Your task to perform on an android device: show emergency info Image 0: 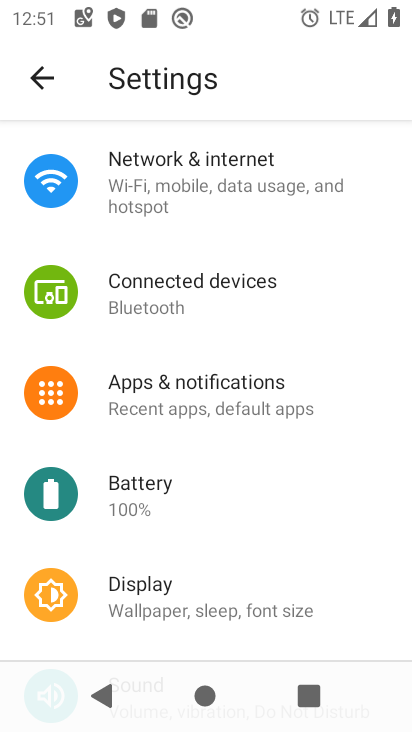
Step 0: drag from (243, 602) to (321, 0)
Your task to perform on an android device: show emergency info Image 1: 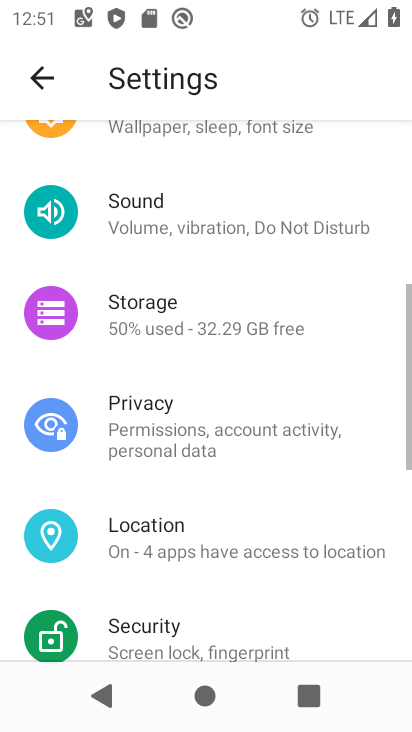
Step 1: drag from (218, 508) to (337, 18)
Your task to perform on an android device: show emergency info Image 2: 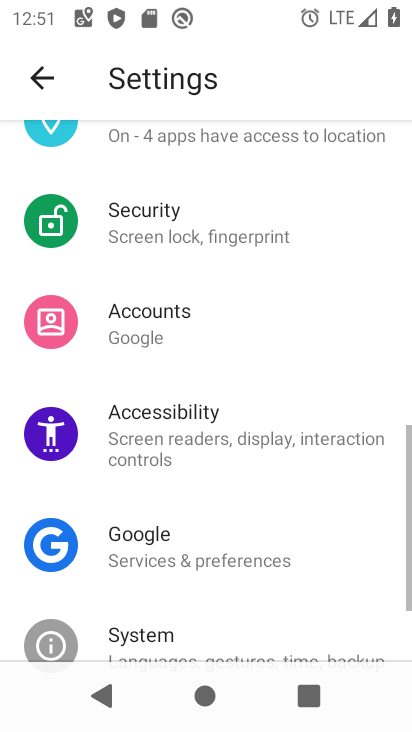
Step 2: drag from (182, 598) to (385, 437)
Your task to perform on an android device: show emergency info Image 3: 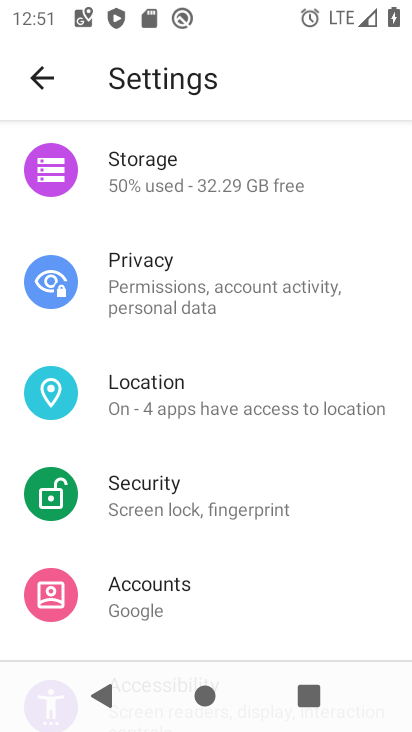
Step 3: drag from (158, 446) to (276, 55)
Your task to perform on an android device: show emergency info Image 4: 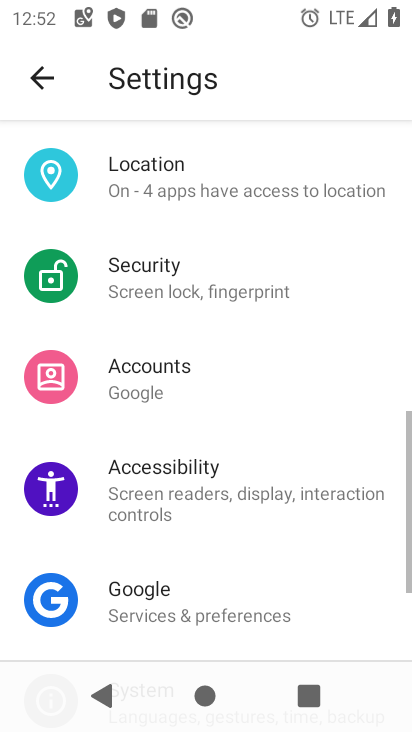
Step 4: drag from (196, 530) to (31, 309)
Your task to perform on an android device: show emergency info Image 5: 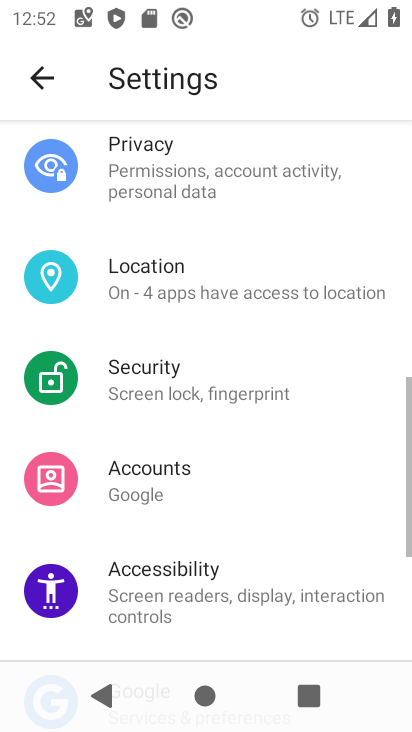
Step 5: click (209, 605)
Your task to perform on an android device: show emergency info Image 6: 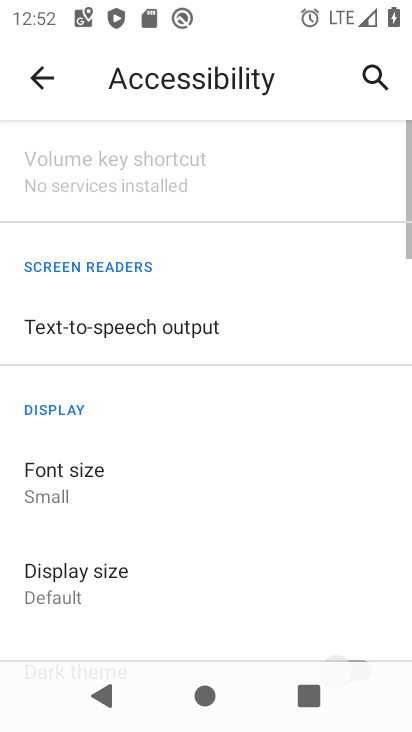
Step 6: drag from (221, 573) to (212, 63)
Your task to perform on an android device: show emergency info Image 7: 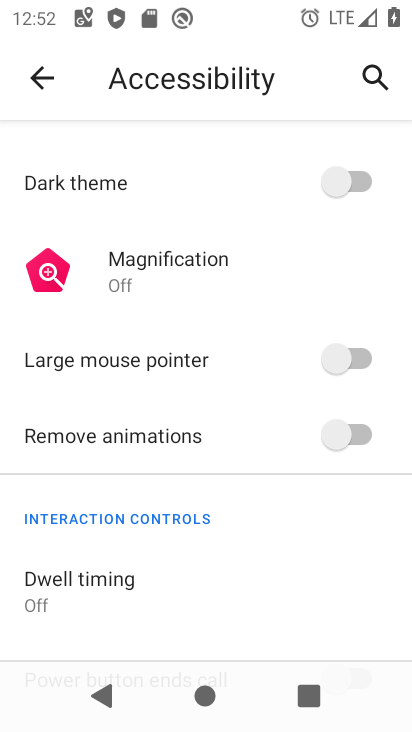
Step 7: drag from (209, 531) to (235, 158)
Your task to perform on an android device: show emergency info Image 8: 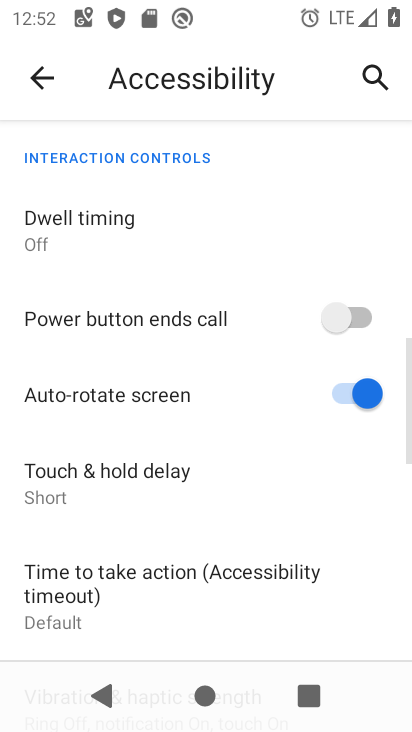
Step 8: click (46, 80)
Your task to perform on an android device: show emergency info Image 9: 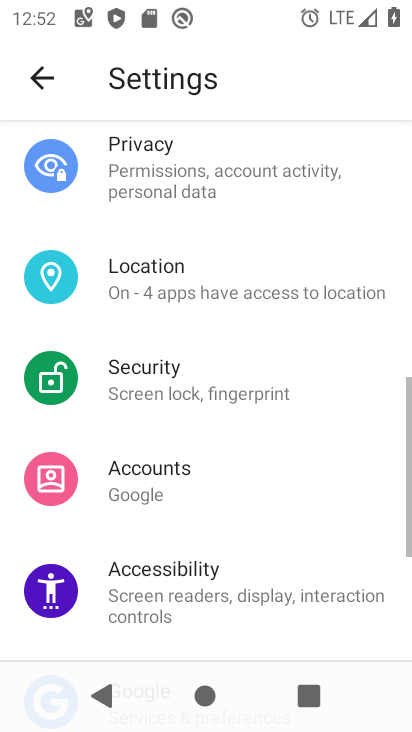
Step 9: drag from (191, 605) to (228, 1)
Your task to perform on an android device: show emergency info Image 10: 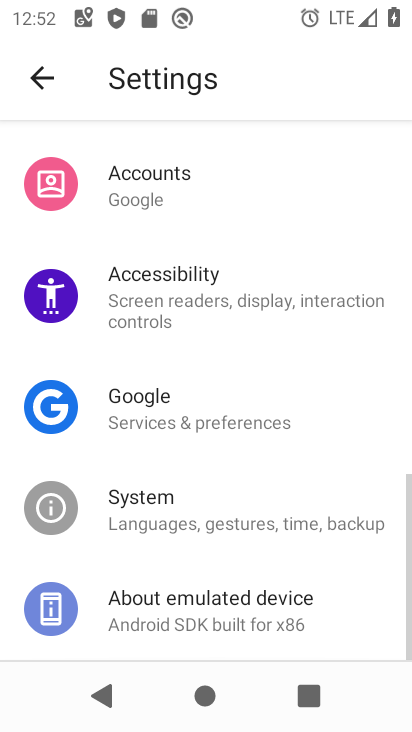
Step 10: click (199, 610)
Your task to perform on an android device: show emergency info Image 11: 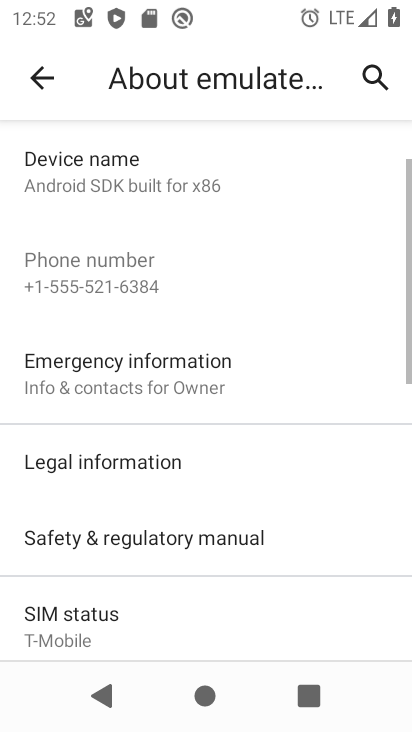
Step 11: click (162, 383)
Your task to perform on an android device: show emergency info Image 12: 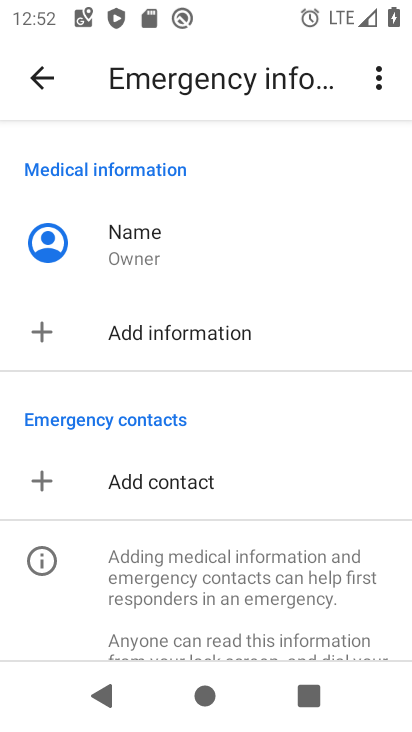
Step 12: task complete